Your task to perform on an android device: Turn on the flashlight Image 0: 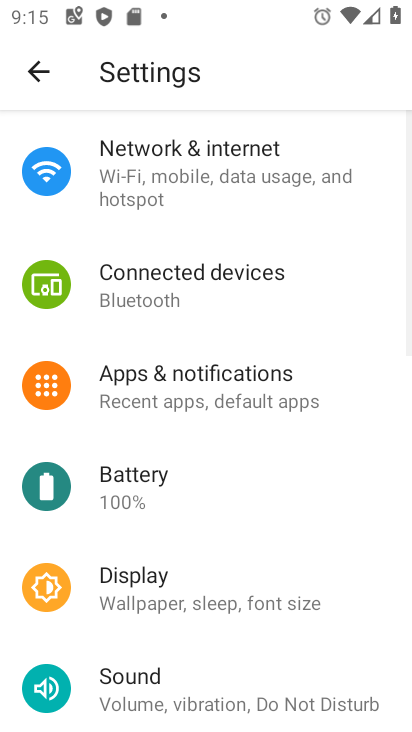
Step 0: drag from (276, 7) to (363, 511)
Your task to perform on an android device: Turn on the flashlight Image 1: 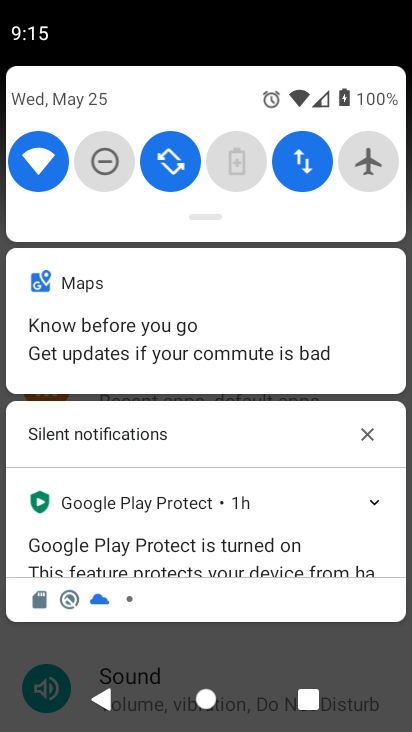
Step 1: task complete